Your task to perform on an android device: toggle data saver in the chrome app Image 0: 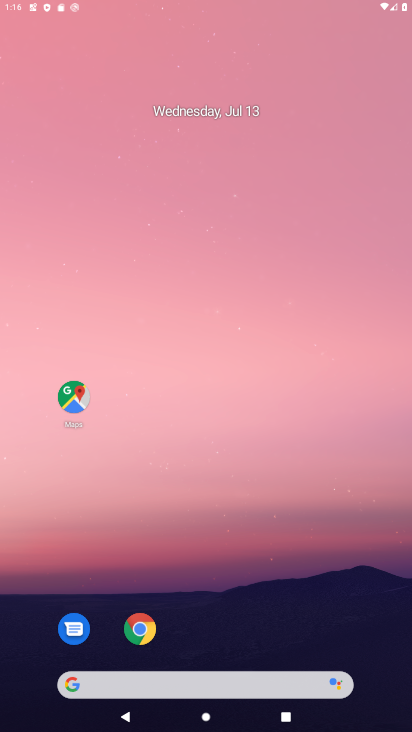
Step 0: click (268, 186)
Your task to perform on an android device: toggle data saver in the chrome app Image 1: 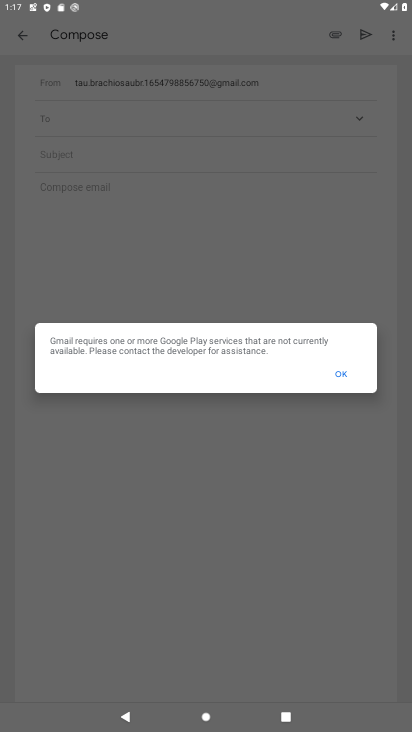
Step 1: press home button
Your task to perform on an android device: toggle data saver in the chrome app Image 2: 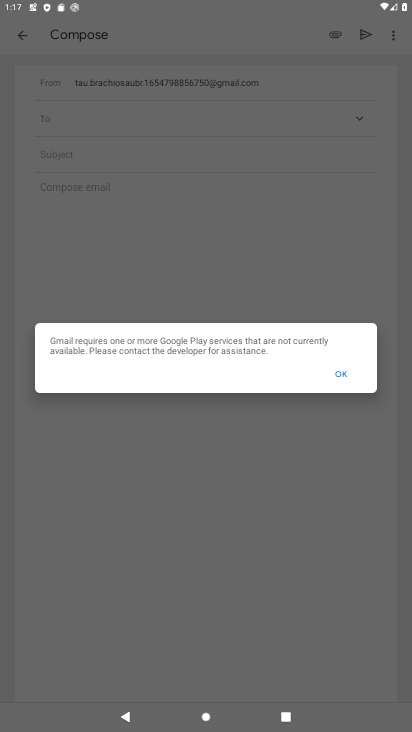
Step 2: click (253, 143)
Your task to perform on an android device: toggle data saver in the chrome app Image 3: 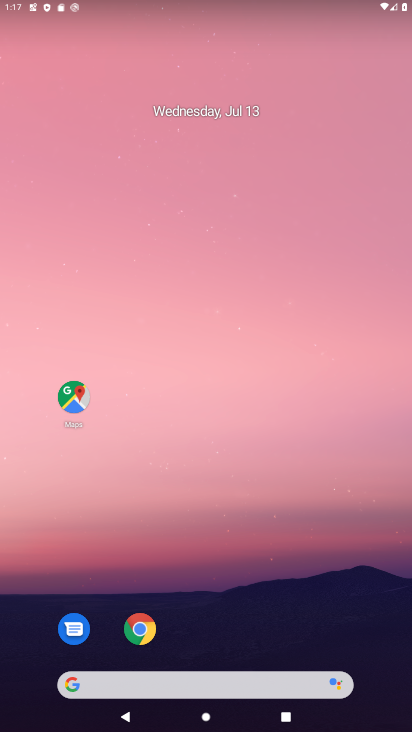
Step 3: drag from (190, 614) to (240, 30)
Your task to perform on an android device: toggle data saver in the chrome app Image 4: 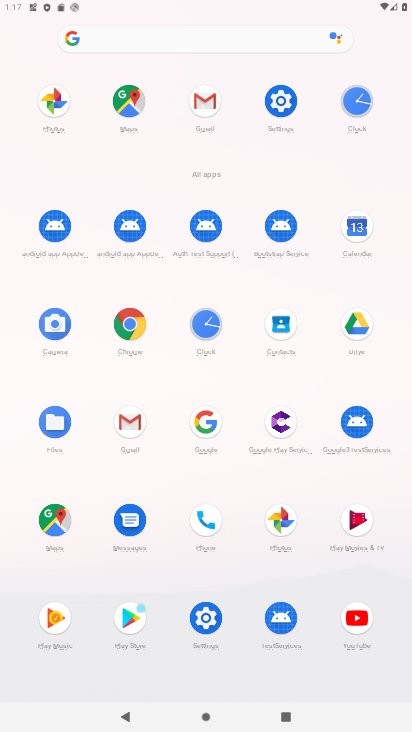
Step 4: click (124, 326)
Your task to perform on an android device: toggle data saver in the chrome app Image 5: 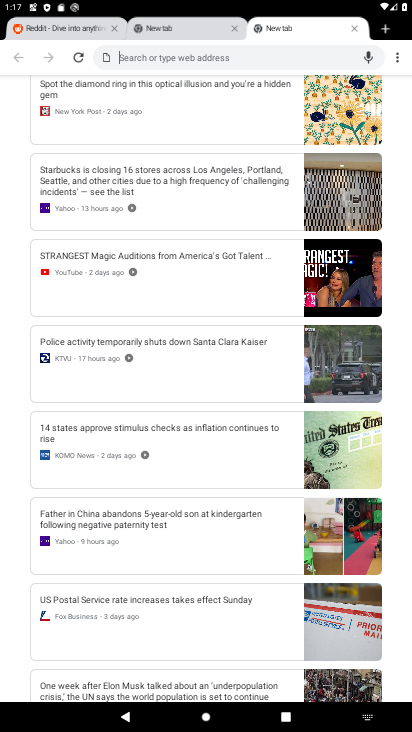
Step 5: click (394, 53)
Your task to perform on an android device: toggle data saver in the chrome app Image 6: 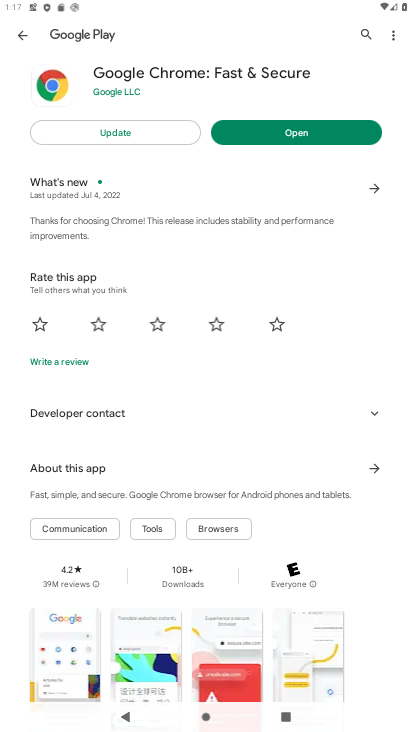
Step 6: click (22, 32)
Your task to perform on an android device: toggle data saver in the chrome app Image 7: 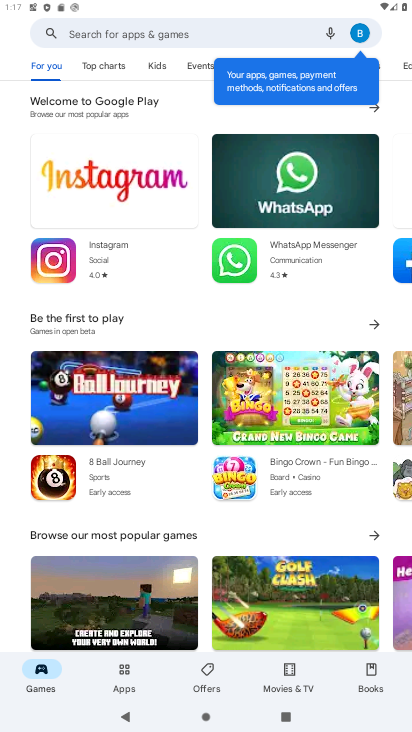
Step 7: press home button
Your task to perform on an android device: toggle data saver in the chrome app Image 8: 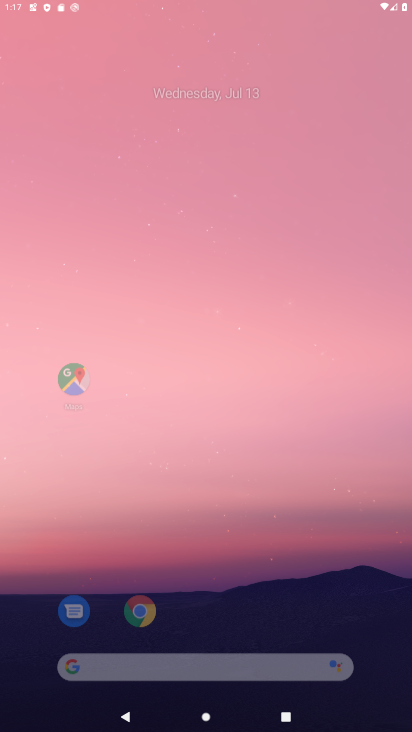
Step 8: drag from (185, 562) to (245, 71)
Your task to perform on an android device: toggle data saver in the chrome app Image 9: 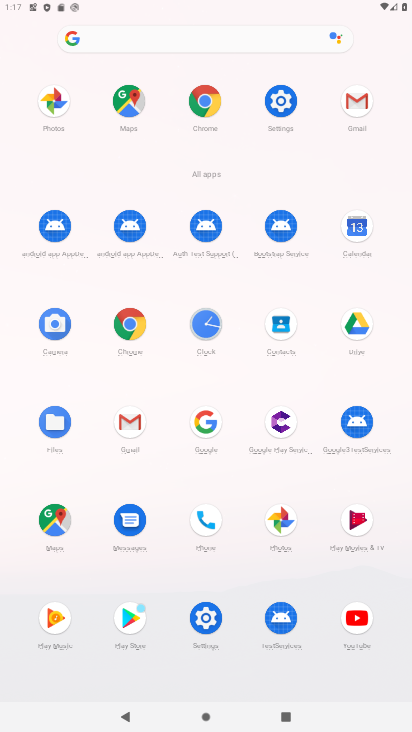
Step 9: click (201, 107)
Your task to perform on an android device: toggle data saver in the chrome app Image 10: 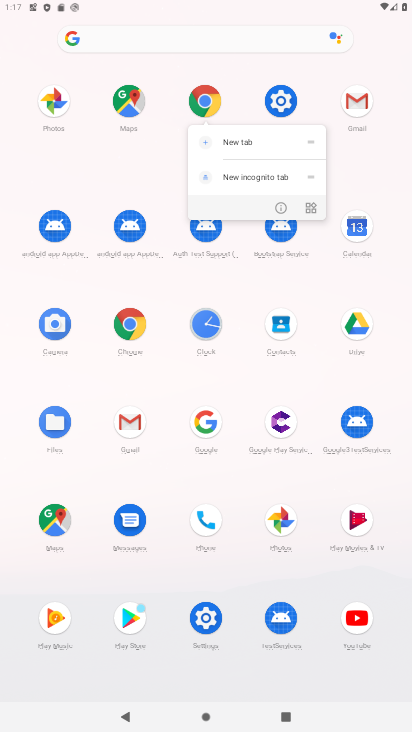
Step 10: click (283, 205)
Your task to perform on an android device: toggle data saver in the chrome app Image 11: 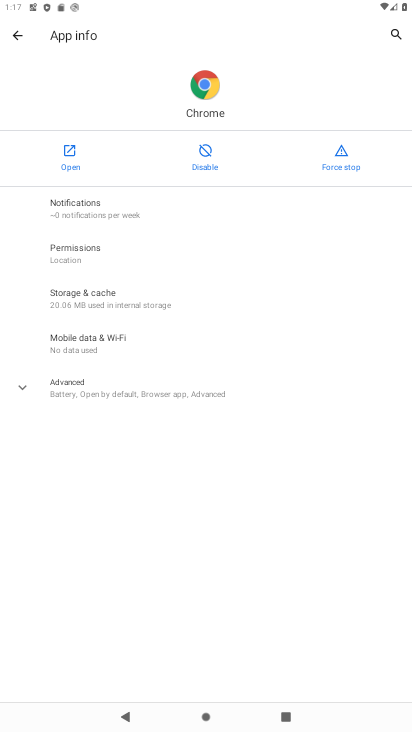
Step 11: click (64, 158)
Your task to perform on an android device: toggle data saver in the chrome app Image 12: 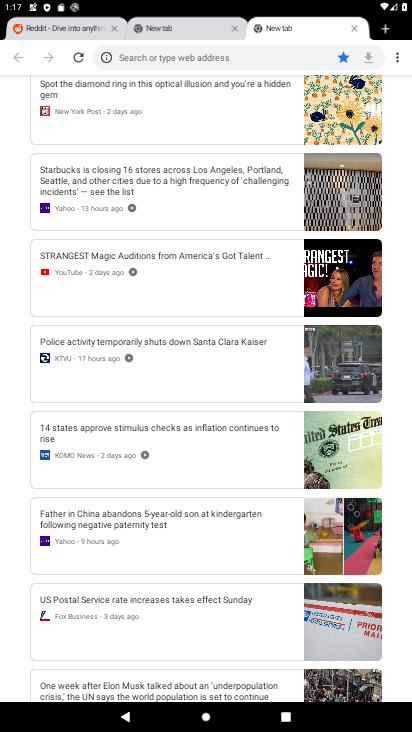
Step 12: click (392, 61)
Your task to perform on an android device: toggle data saver in the chrome app Image 13: 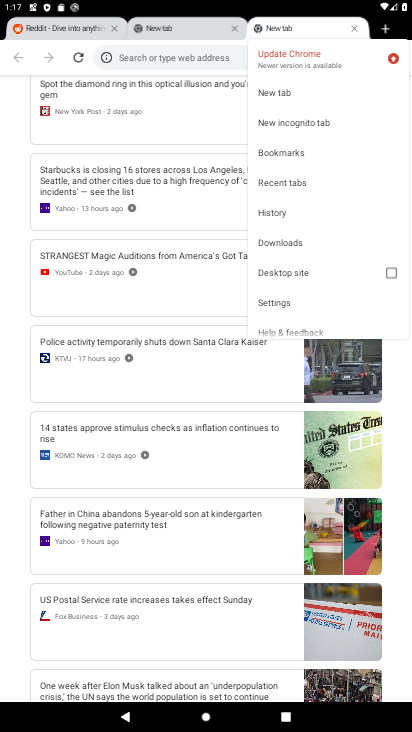
Step 13: click (284, 303)
Your task to perform on an android device: toggle data saver in the chrome app Image 14: 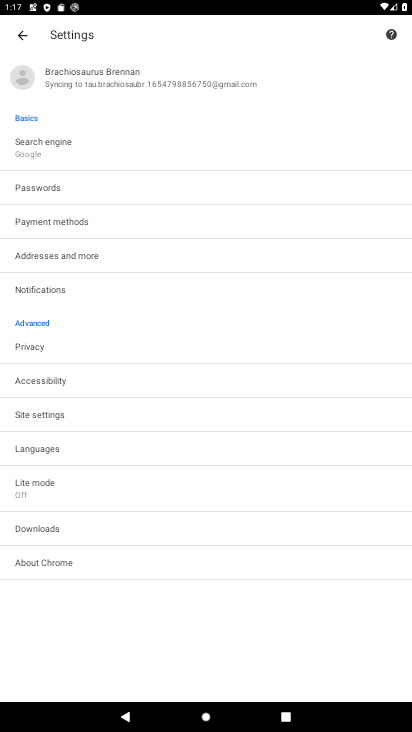
Step 14: click (69, 491)
Your task to perform on an android device: toggle data saver in the chrome app Image 15: 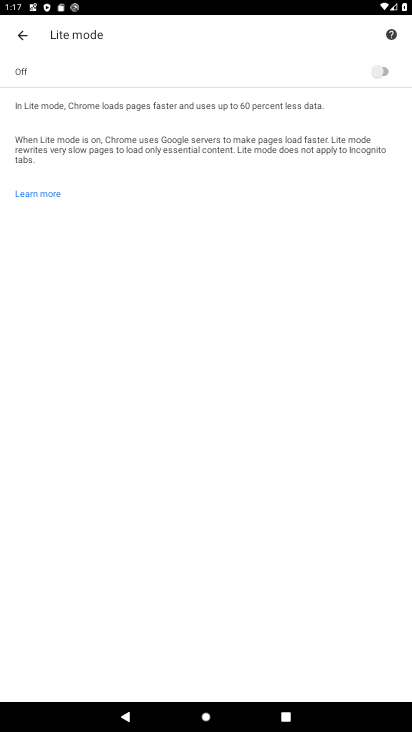
Step 15: click (376, 73)
Your task to perform on an android device: toggle data saver in the chrome app Image 16: 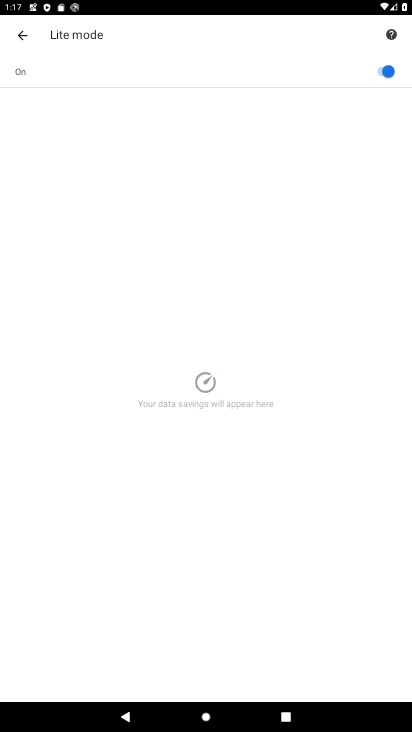
Step 16: task complete